Your task to perform on an android device: View the shopping cart on target.com. Add logitech g933 to the cart on target.com Image 0: 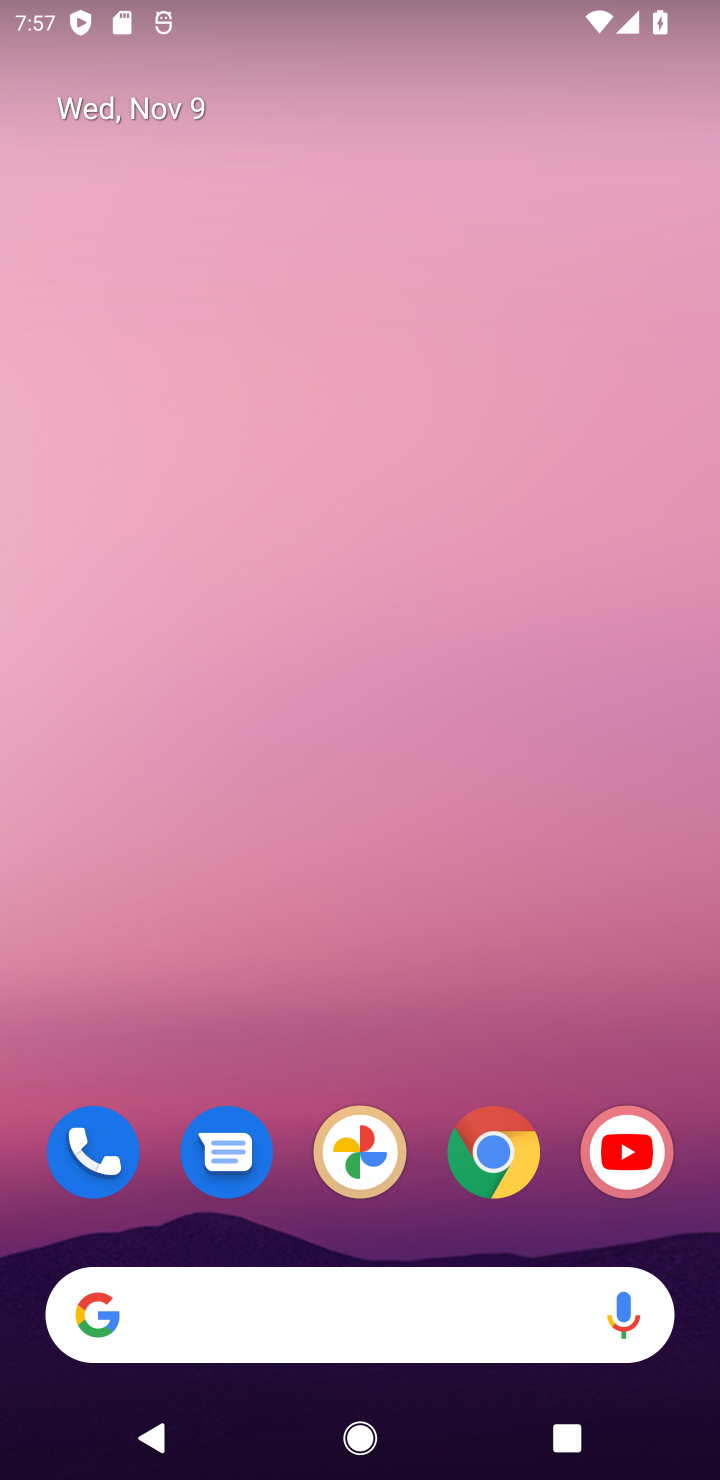
Step 0: click (502, 1160)
Your task to perform on an android device: View the shopping cart on target.com. Add logitech g933 to the cart on target.com Image 1: 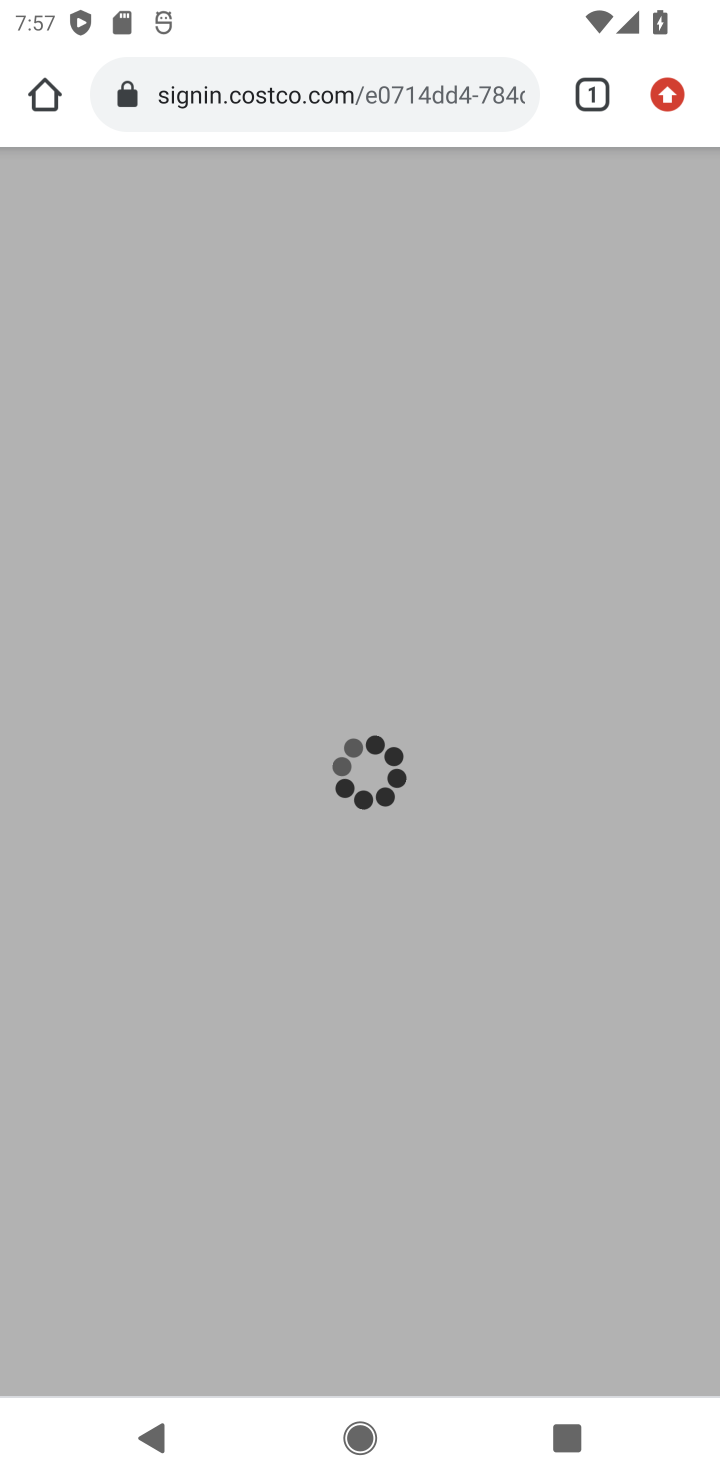
Step 1: click (324, 90)
Your task to perform on an android device: View the shopping cart on target.com. Add logitech g933 to the cart on target.com Image 2: 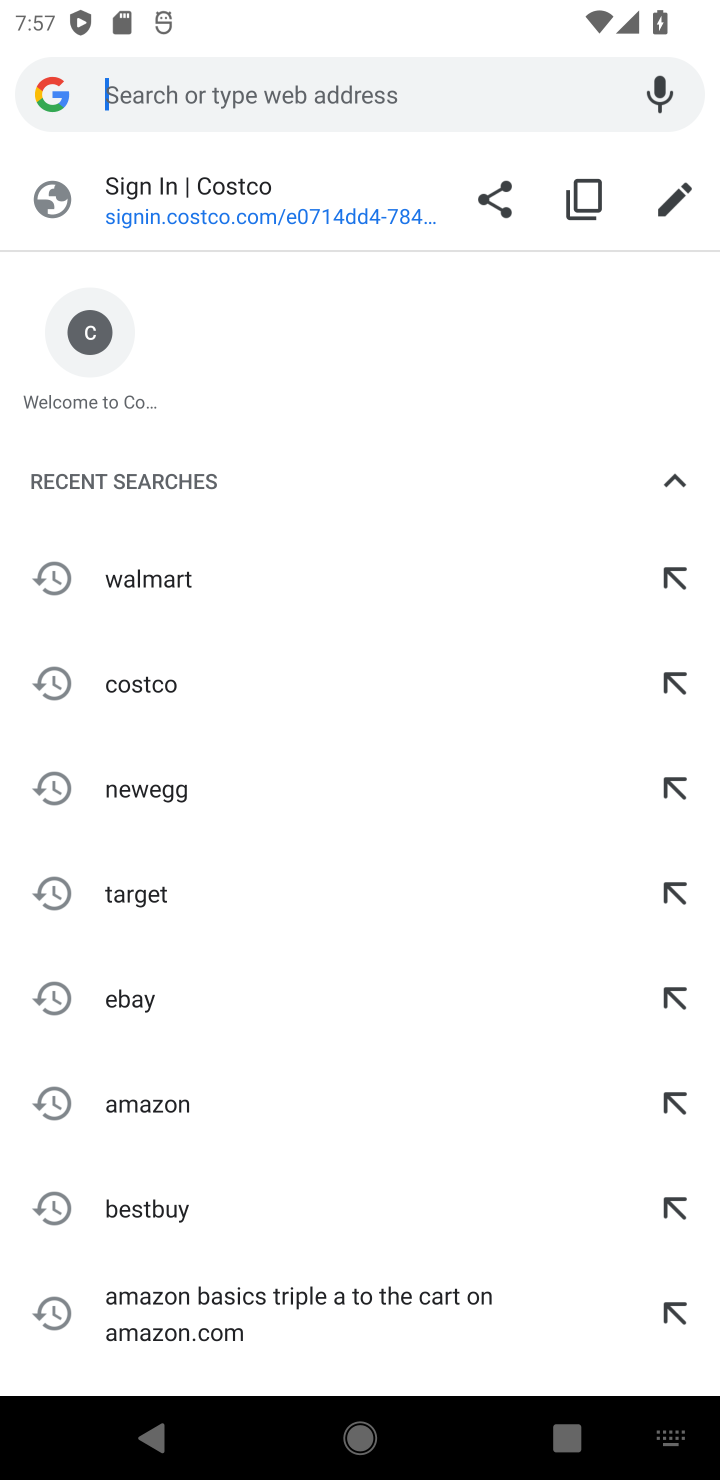
Step 2: click (127, 889)
Your task to perform on an android device: View the shopping cart on target.com. Add logitech g933 to the cart on target.com Image 3: 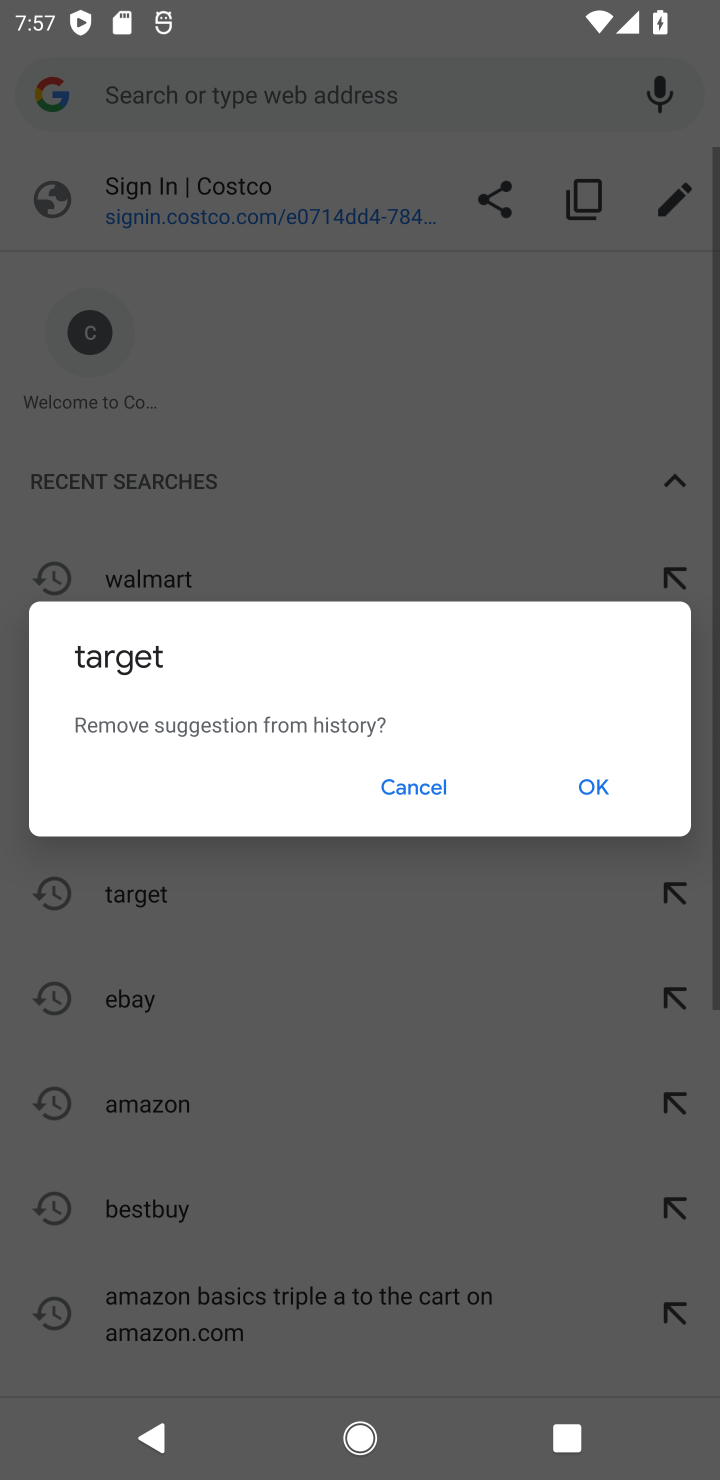
Step 3: click (402, 790)
Your task to perform on an android device: View the shopping cart on target.com. Add logitech g933 to the cart on target.com Image 4: 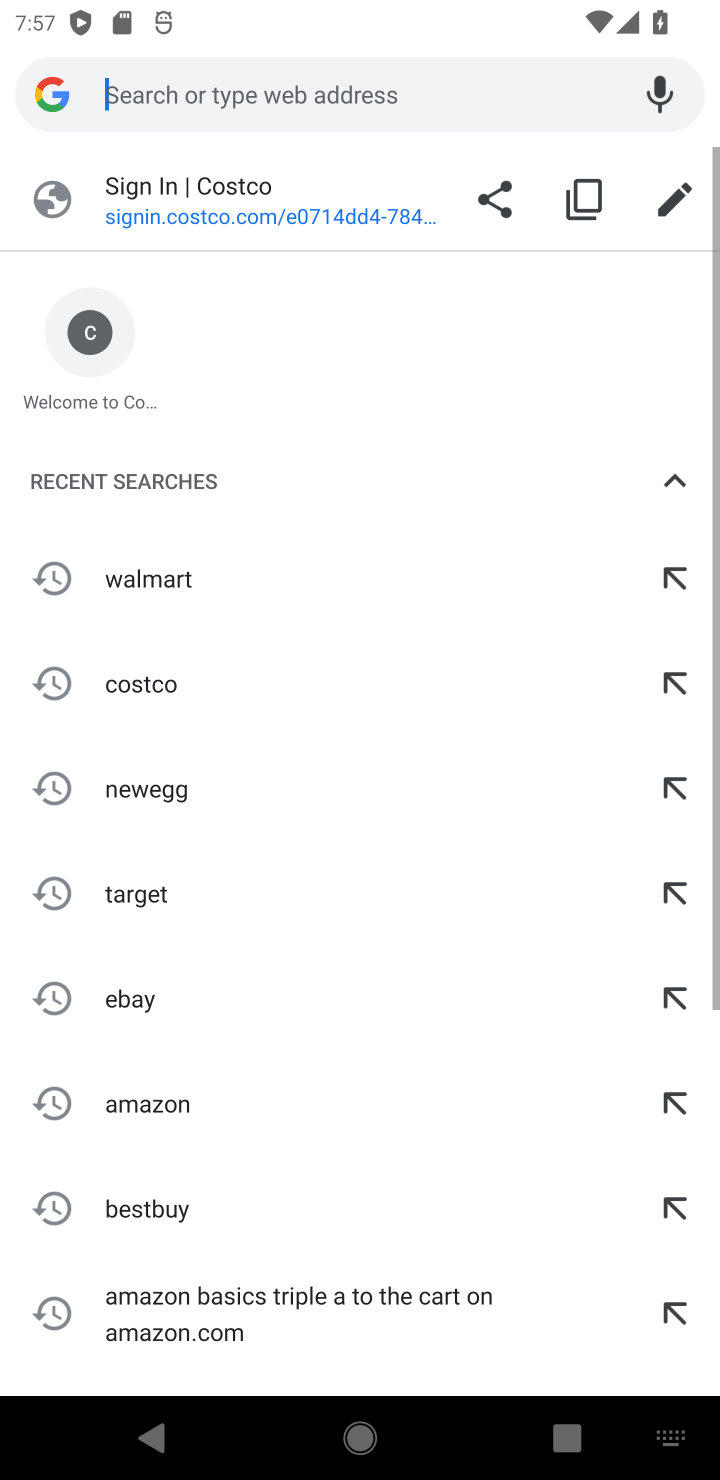
Step 4: click (129, 901)
Your task to perform on an android device: View the shopping cart on target.com. Add logitech g933 to the cart on target.com Image 5: 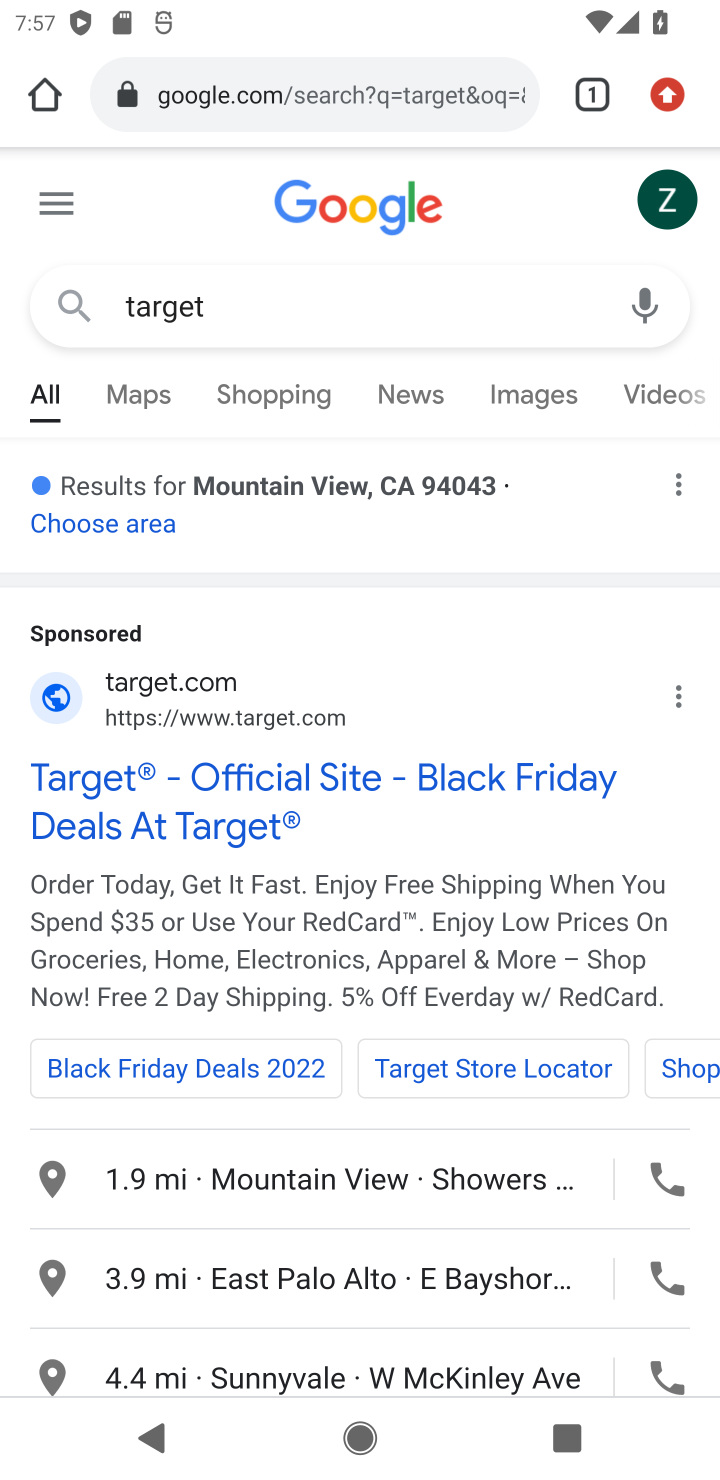
Step 5: click (173, 773)
Your task to perform on an android device: View the shopping cart on target.com. Add logitech g933 to the cart on target.com Image 6: 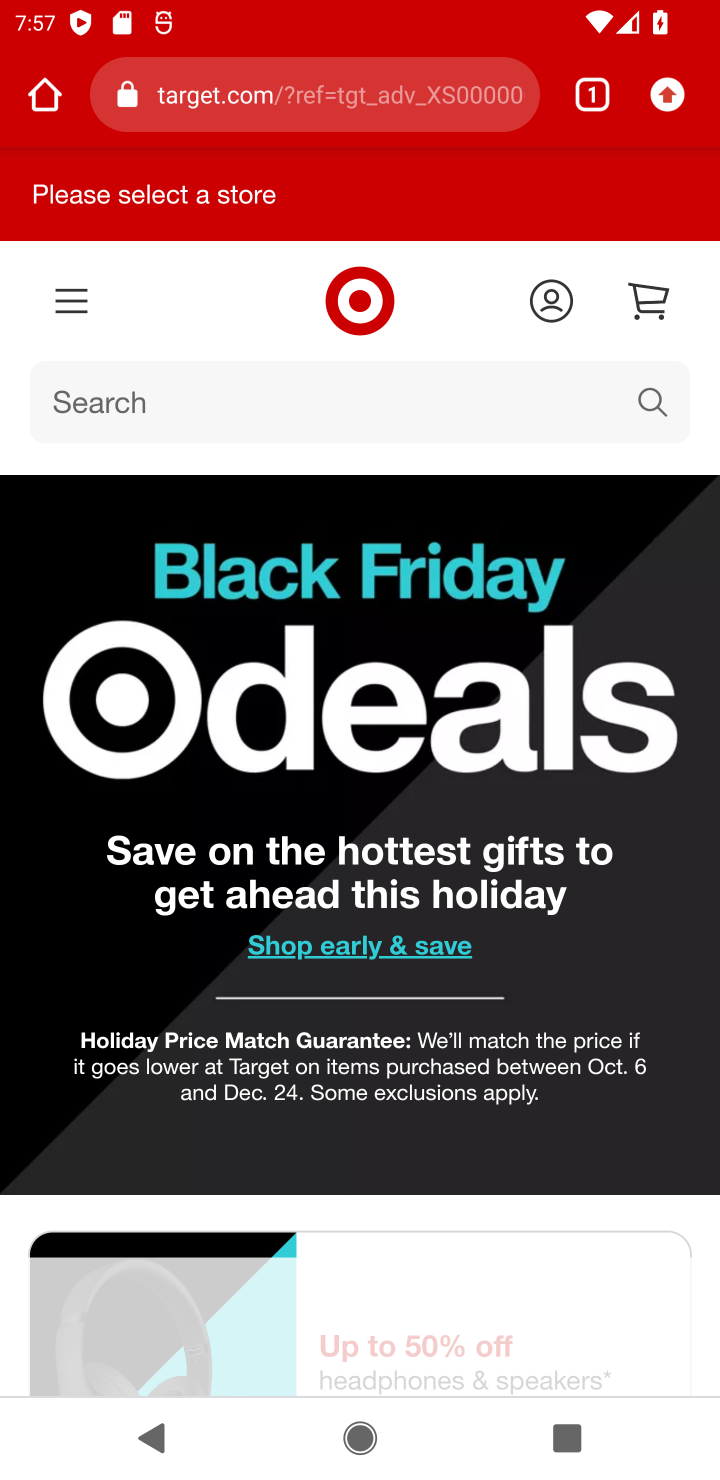
Step 6: click (152, 403)
Your task to perform on an android device: View the shopping cart on target.com. Add logitech g933 to the cart on target.com Image 7: 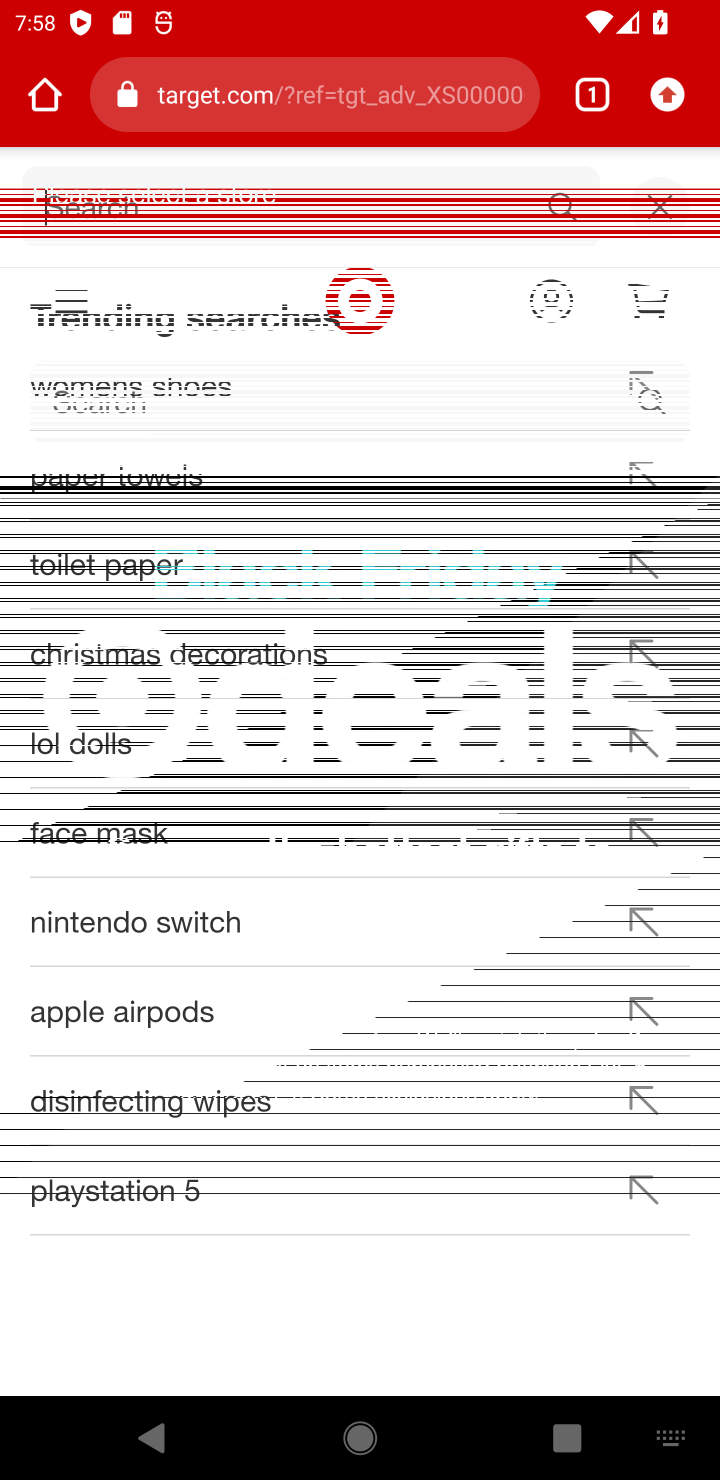
Step 7: click (191, 197)
Your task to perform on an android device: View the shopping cart on target.com. Add logitech g933 to the cart on target.com Image 8: 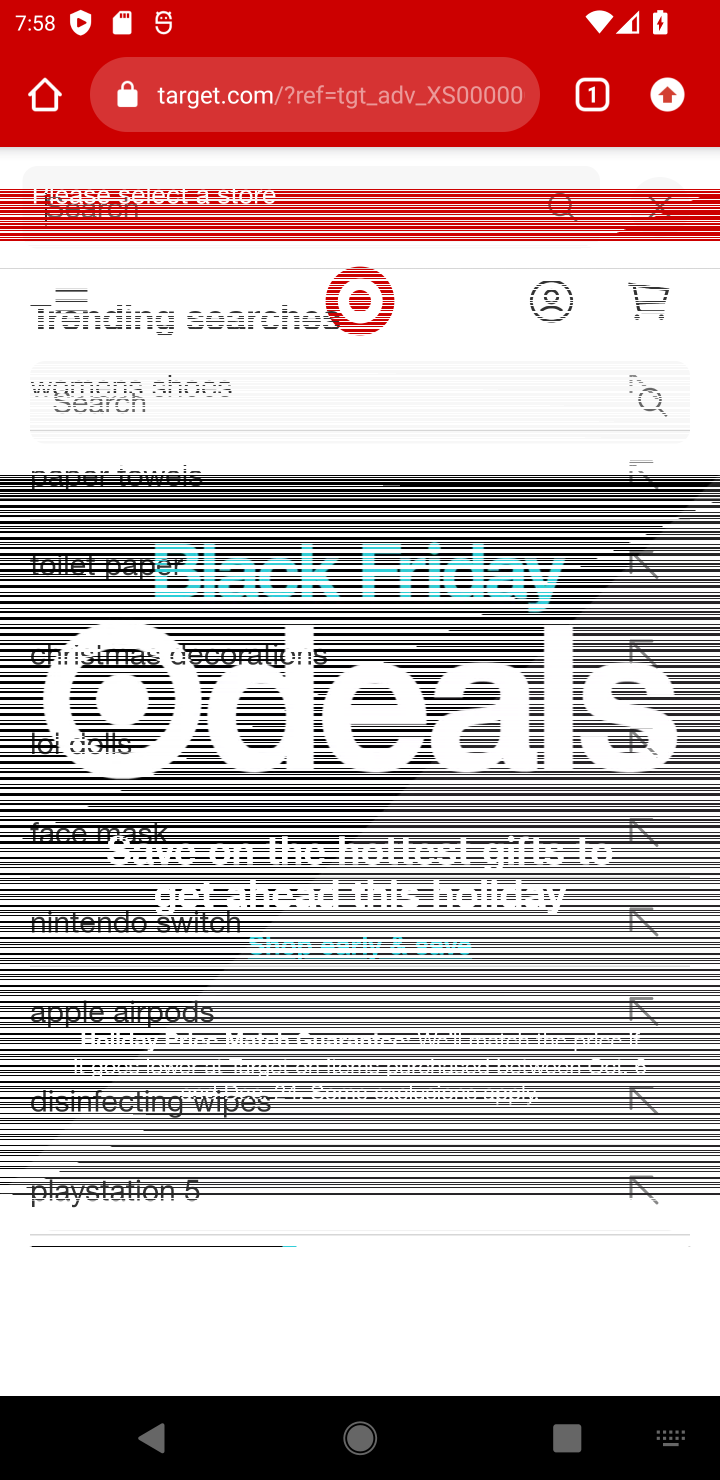
Step 8: type " logitech g933"
Your task to perform on an android device: View the shopping cart on target.com. Add logitech g933 to the cart on target.com Image 9: 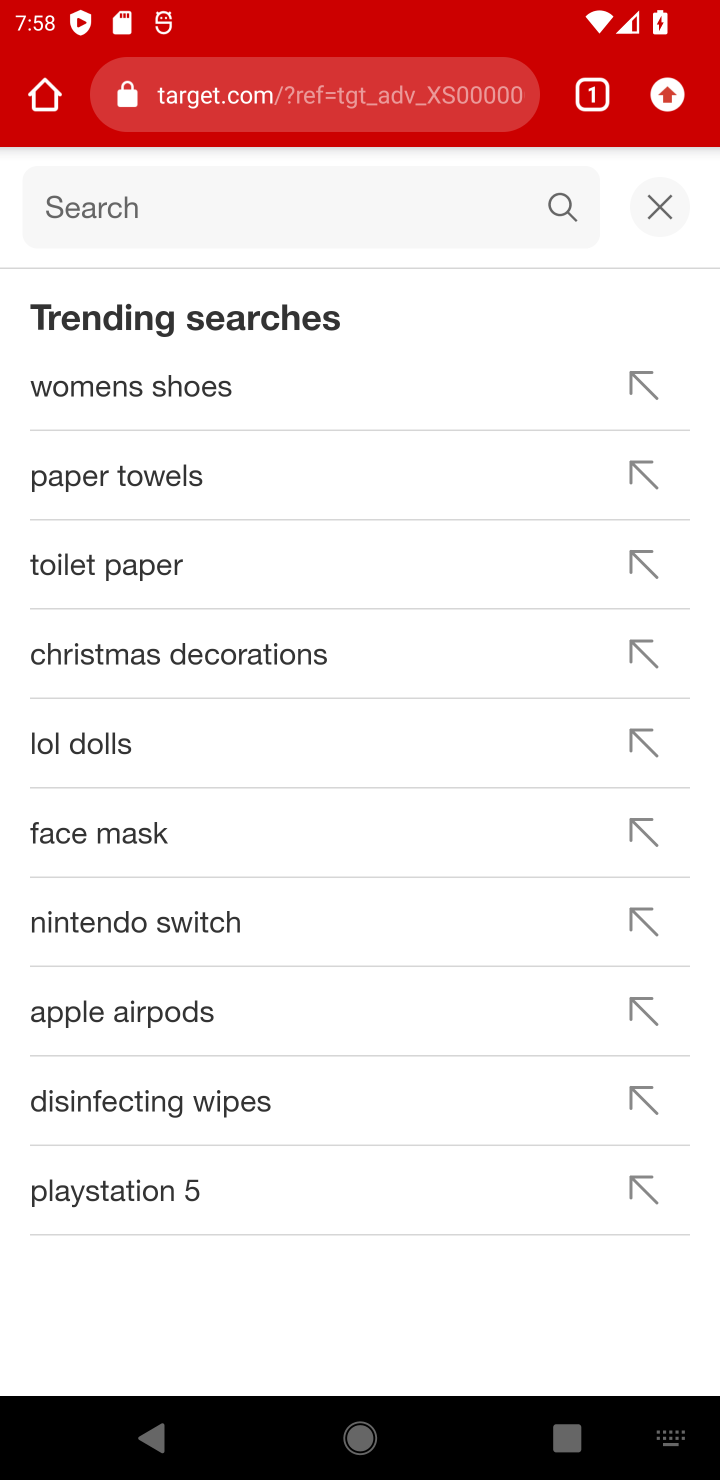
Step 9: press enter
Your task to perform on an android device: View the shopping cart on target.com. Add logitech g933 to the cart on target.com Image 10: 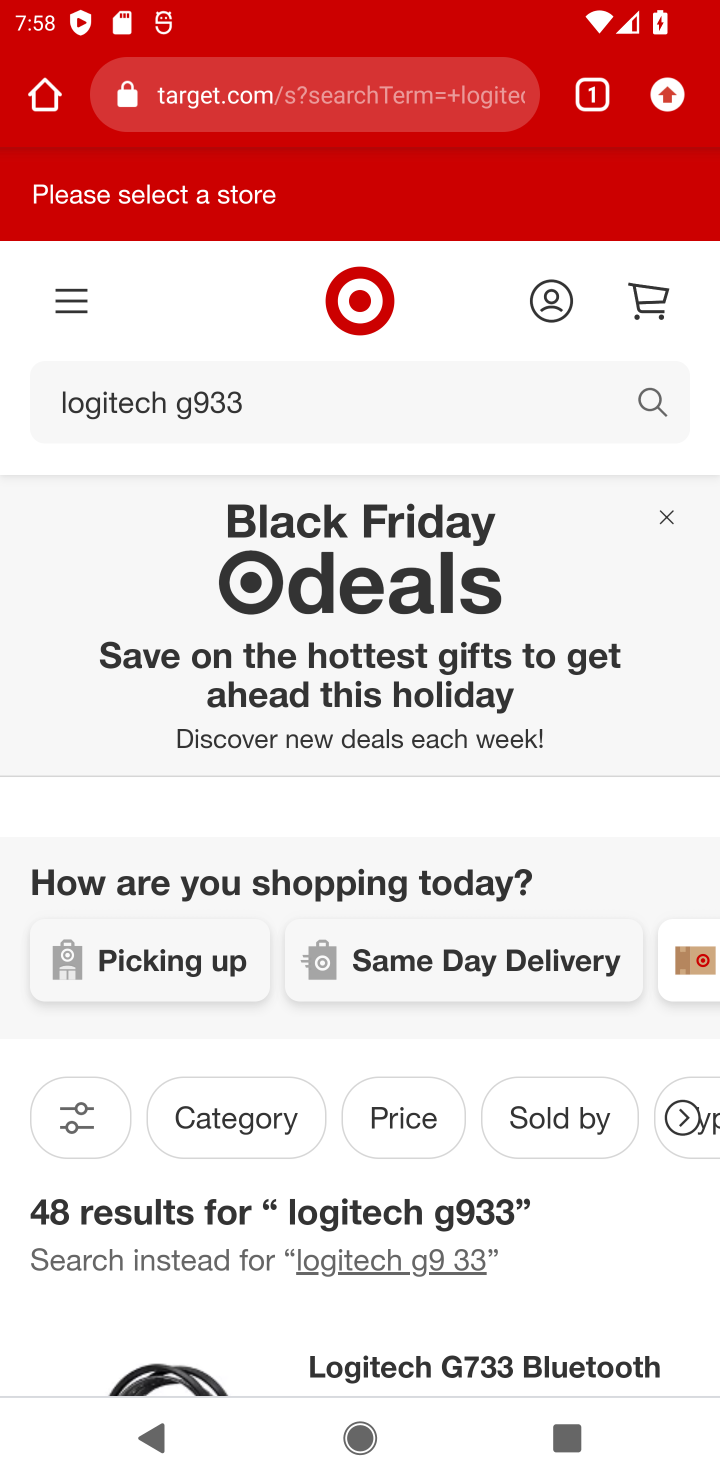
Step 10: task complete